Your task to perform on an android device: open the mobile data screen to see how much data has been used Image 0: 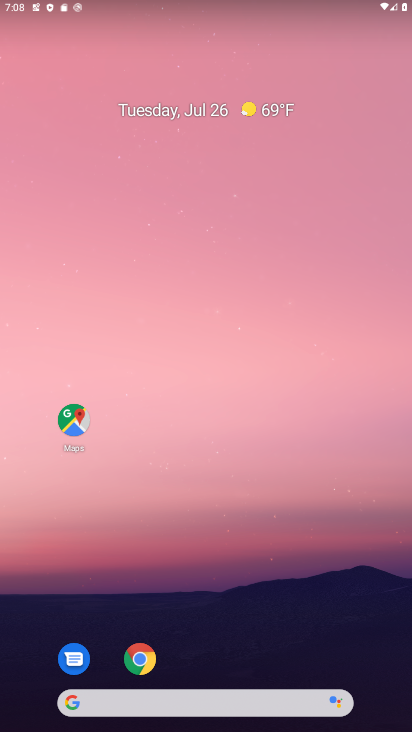
Step 0: drag from (191, 716) to (265, 220)
Your task to perform on an android device: open the mobile data screen to see how much data has been used Image 1: 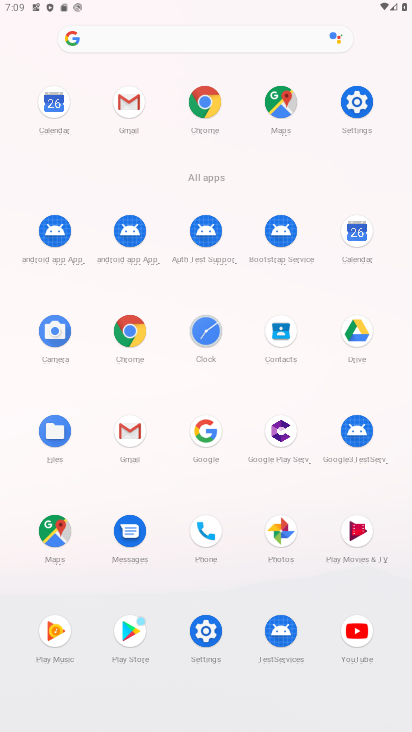
Step 1: click (359, 95)
Your task to perform on an android device: open the mobile data screen to see how much data has been used Image 2: 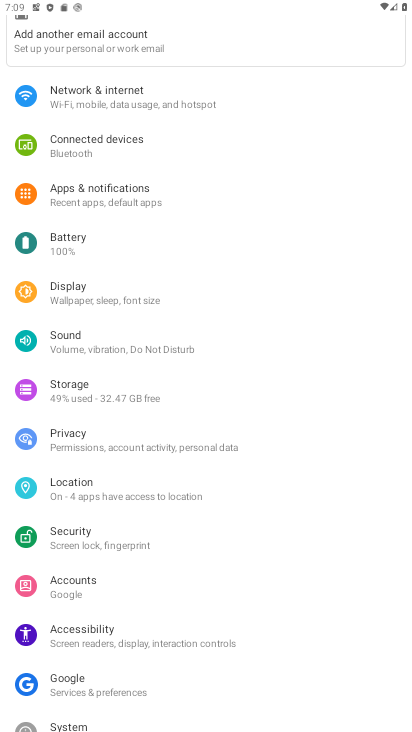
Step 2: drag from (108, 126) to (102, 189)
Your task to perform on an android device: open the mobile data screen to see how much data has been used Image 3: 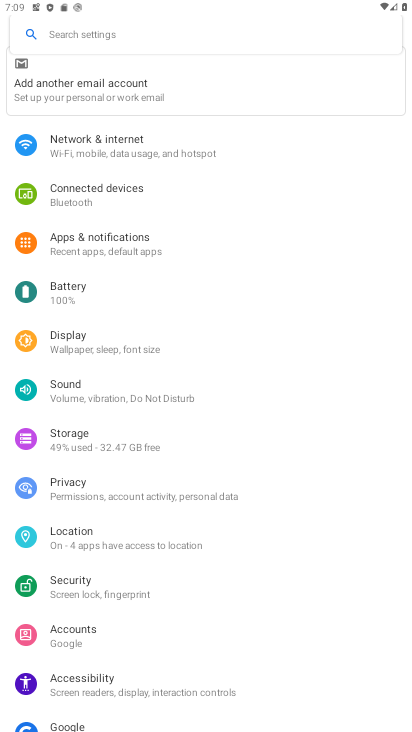
Step 3: click (111, 34)
Your task to perform on an android device: open the mobile data screen to see how much data has been used Image 4: 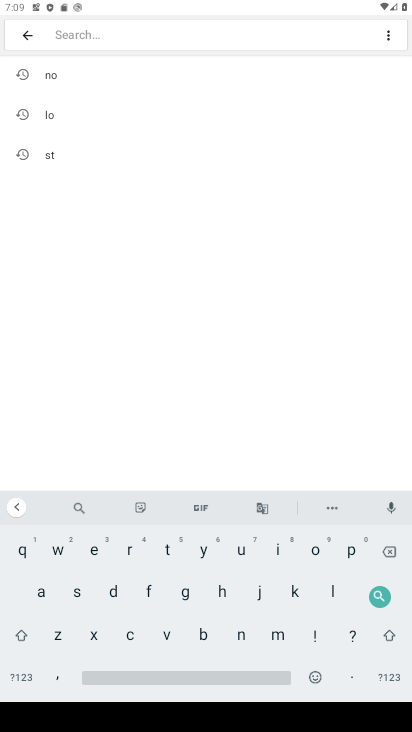
Step 4: click (116, 587)
Your task to perform on an android device: open the mobile data screen to see how much data has been used Image 5: 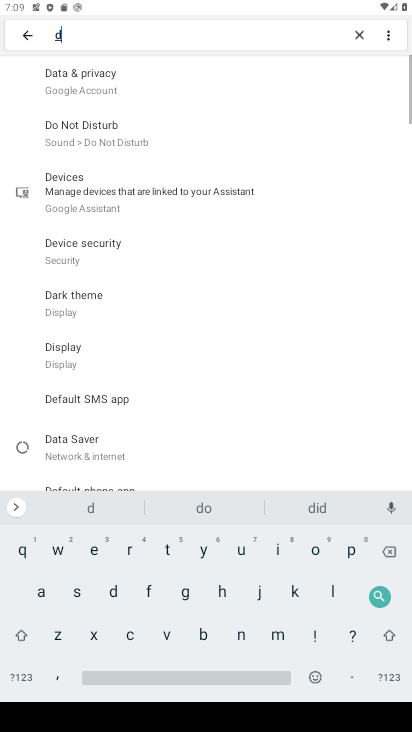
Step 5: click (35, 586)
Your task to perform on an android device: open the mobile data screen to see how much data has been used Image 6: 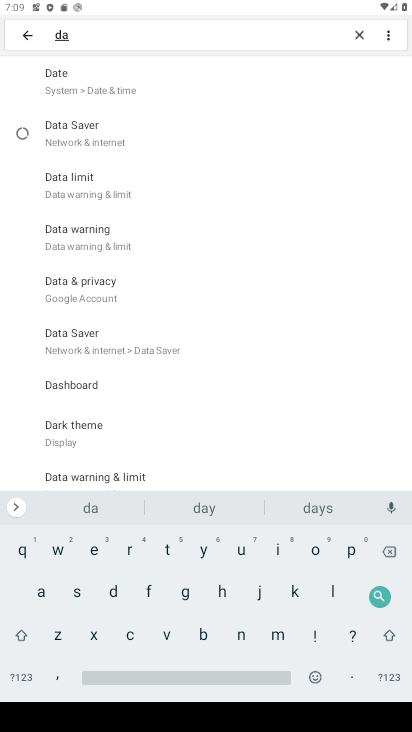
Step 6: click (163, 549)
Your task to perform on an android device: open the mobile data screen to see how much data has been used Image 7: 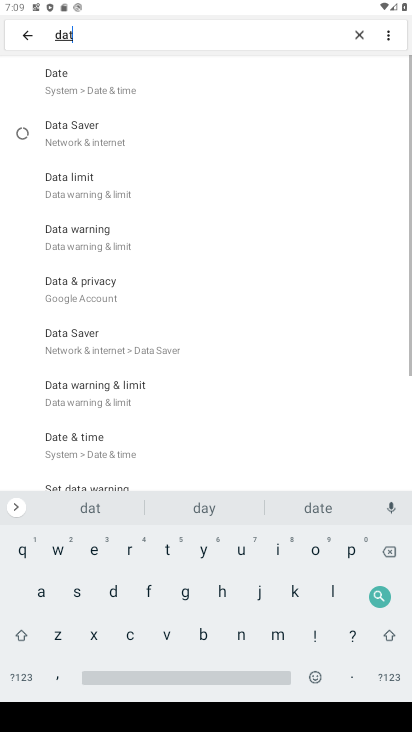
Step 7: click (34, 585)
Your task to perform on an android device: open the mobile data screen to see how much data has been used Image 8: 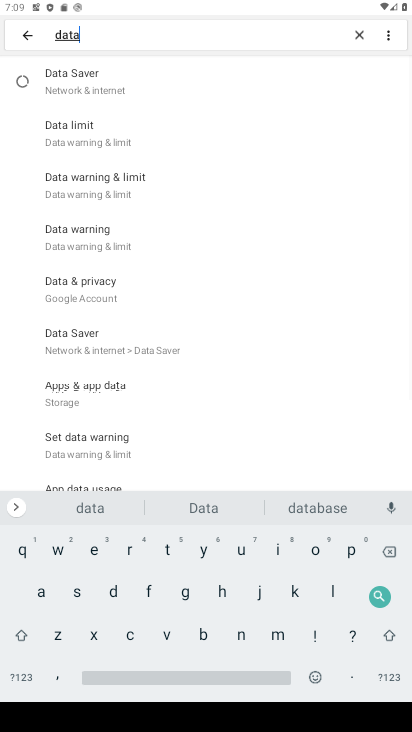
Step 8: click (154, 673)
Your task to perform on an android device: open the mobile data screen to see how much data has been used Image 9: 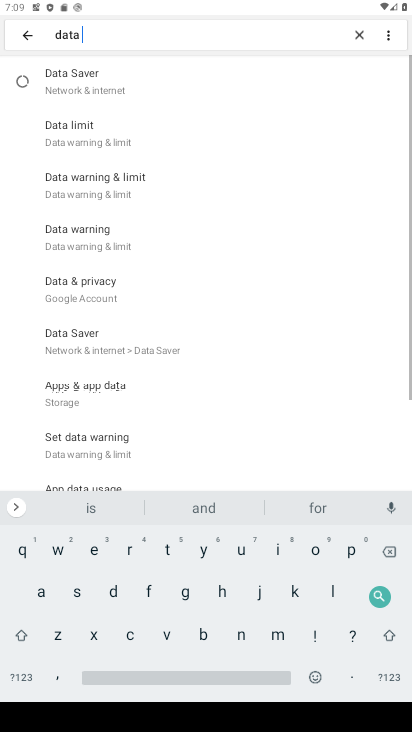
Step 9: click (238, 552)
Your task to perform on an android device: open the mobile data screen to see how much data has been used Image 10: 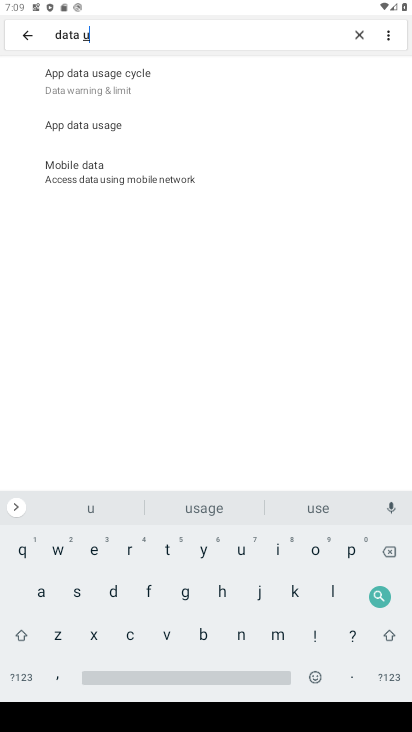
Step 10: click (82, 131)
Your task to perform on an android device: open the mobile data screen to see how much data has been used Image 11: 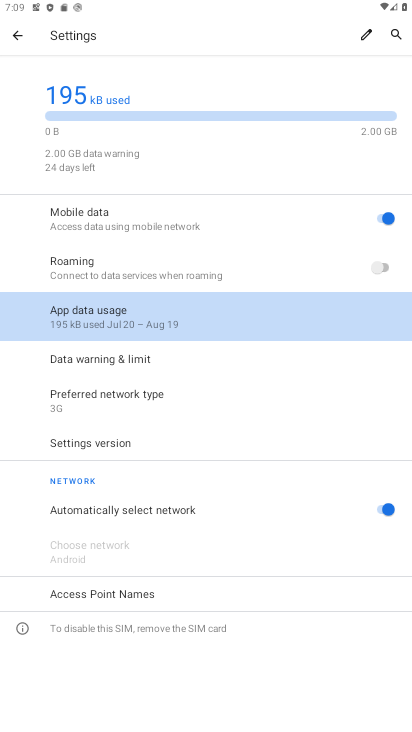
Step 11: click (121, 323)
Your task to perform on an android device: open the mobile data screen to see how much data has been used Image 12: 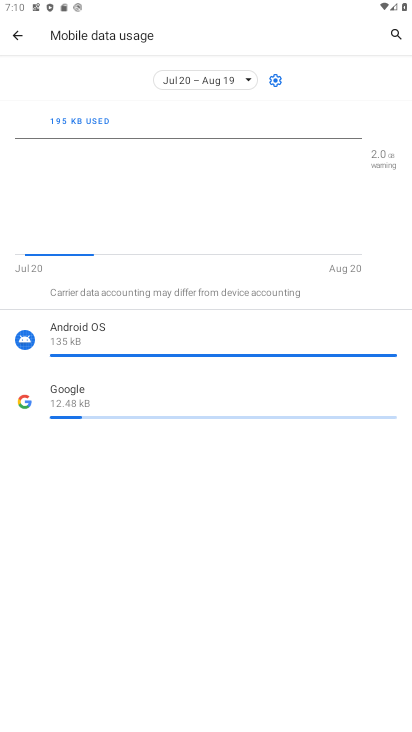
Step 12: task complete